Your task to perform on an android device: What's the weather today? Image 0: 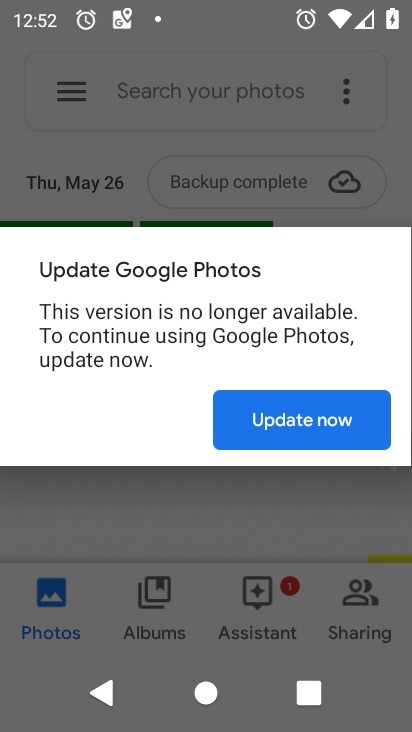
Step 0: press home button
Your task to perform on an android device: What's the weather today? Image 1: 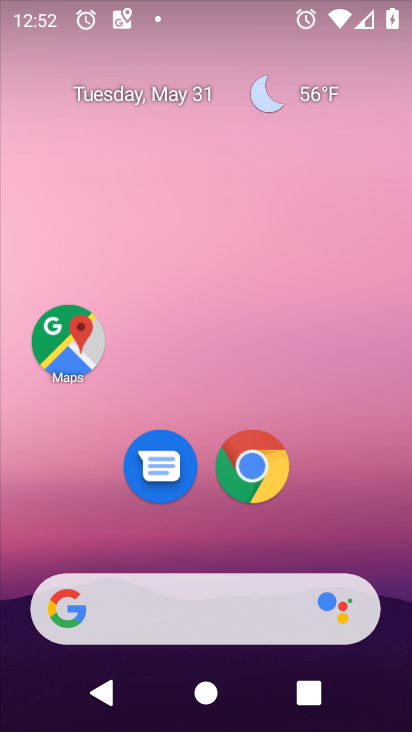
Step 1: click (298, 102)
Your task to perform on an android device: What's the weather today? Image 2: 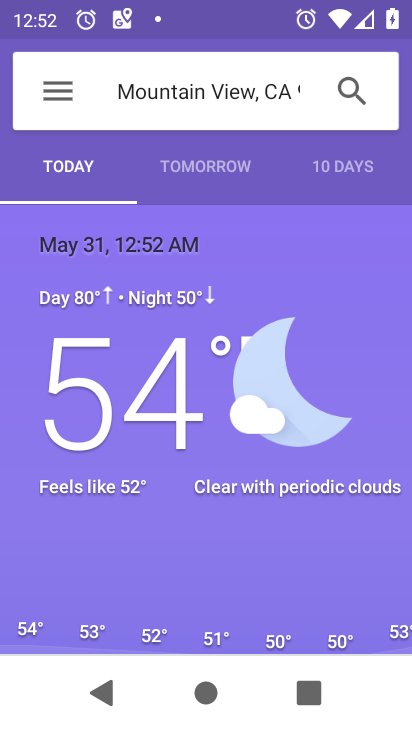
Step 2: task complete